Your task to perform on an android device: toggle sleep mode Image 0: 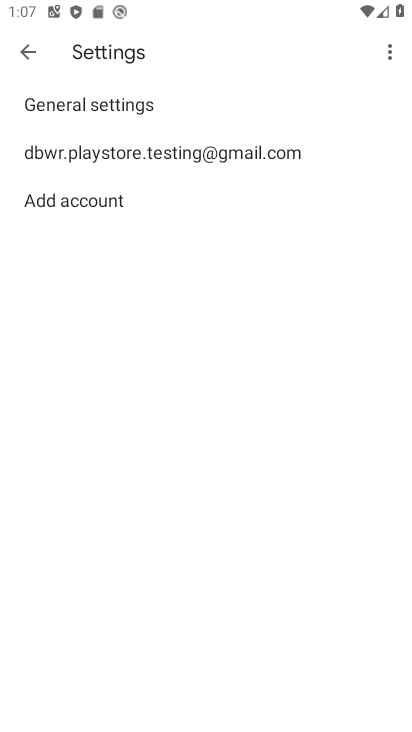
Step 0: task complete